Your task to perform on an android device: Open wifi settings Image 0: 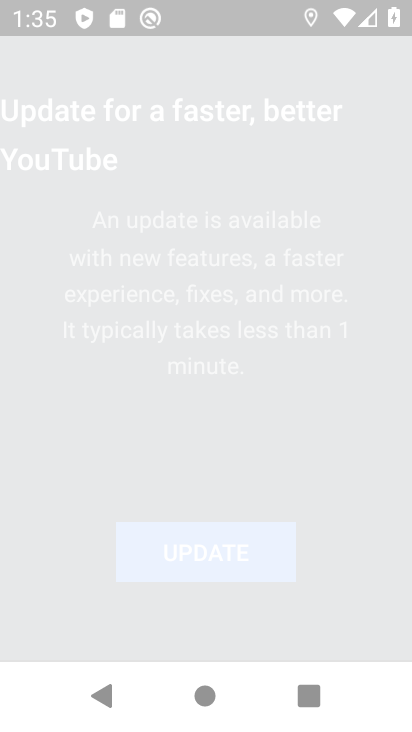
Step 0: drag from (385, 512) to (370, 120)
Your task to perform on an android device: Open wifi settings Image 1: 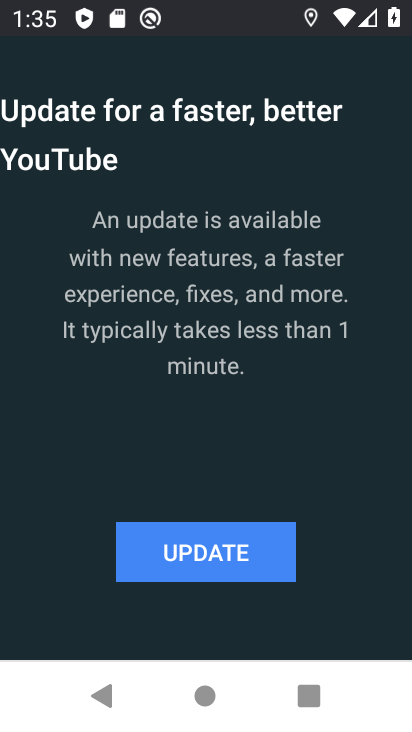
Step 1: press home button
Your task to perform on an android device: Open wifi settings Image 2: 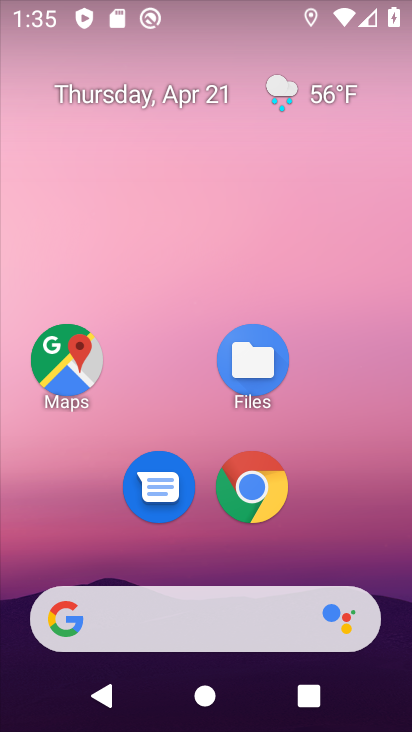
Step 2: drag from (358, 503) to (349, 130)
Your task to perform on an android device: Open wifi settings Image 3: 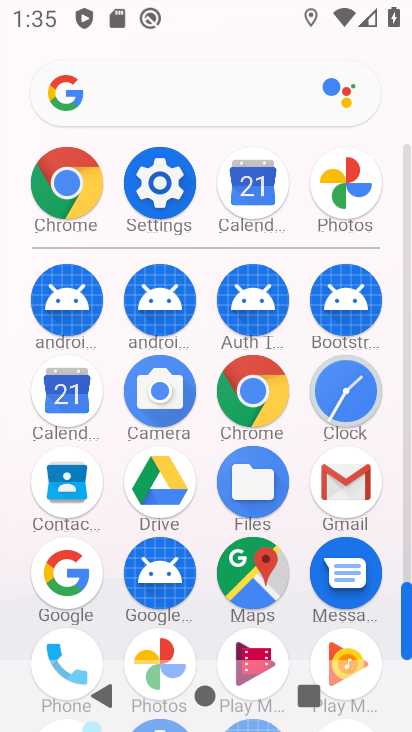
Step 3: click (156, 192)
Your task to perform on an android device: Open wifi settings Image 4: 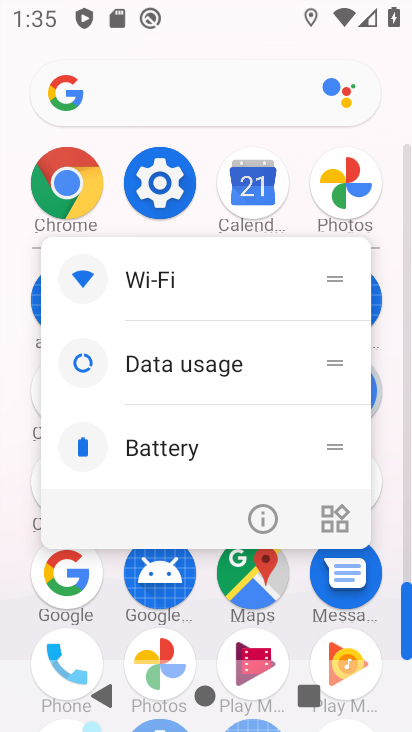
Step 4: click (156, 192)
Your task to perform on an android device: Open wifi settings Image 5: 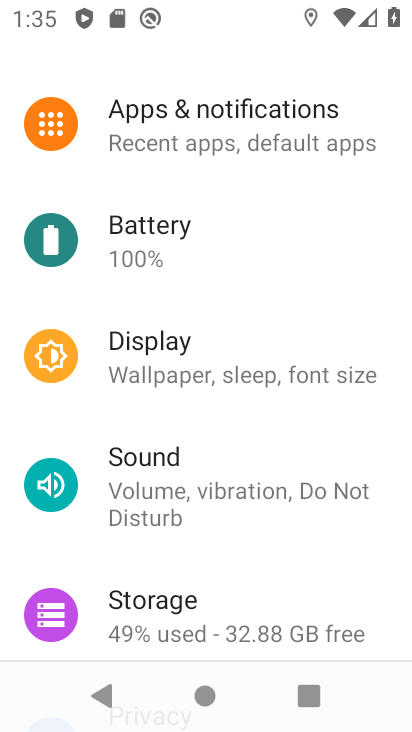
Step 5: drag from (249, 210) to (252, 582)
Your task to perform on an android device: Open wifi settings Image 6: 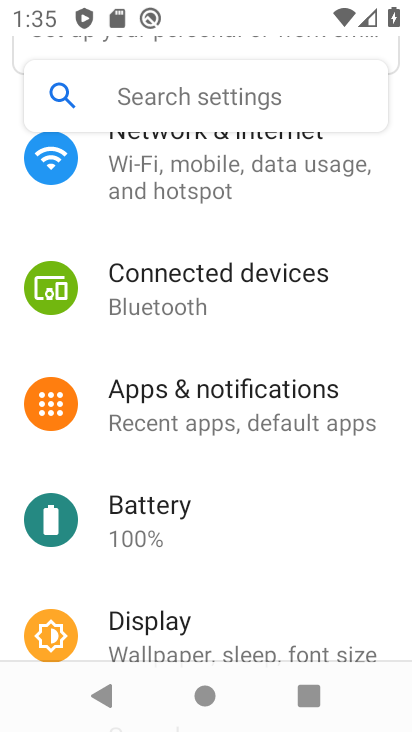
Step 6: click (203, 181)
Your task to perform on an android device: Open wifi settings Image 7: 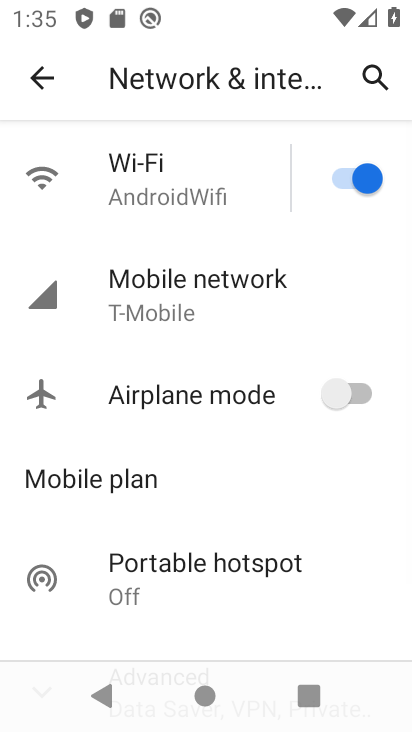
Step 7: click (204, 179)
Your task to perform on an android device: Open wifi settings Image 8: 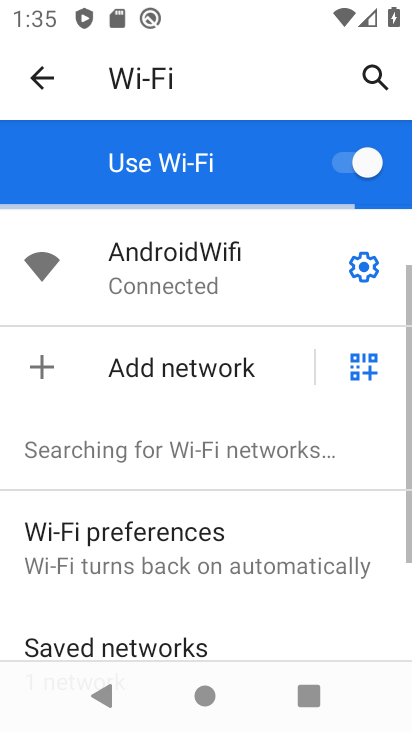
Step 8: click (353, 270)
Your task to perform on an android device: Open wifi settings Image 9: 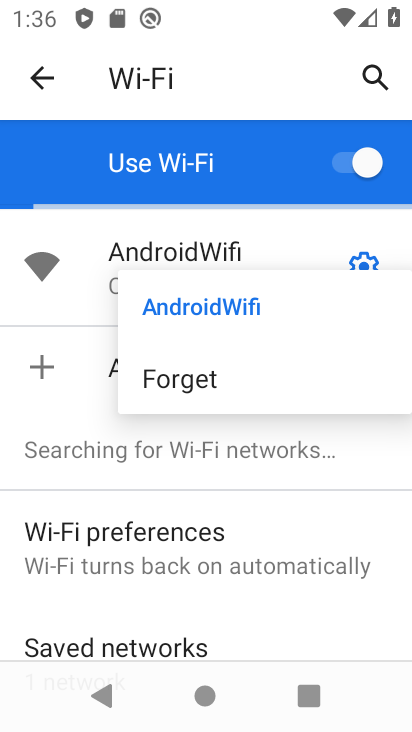
Step 9: click (363, 260)
Your task to perform on an android device: Open wifi settings Image 10: 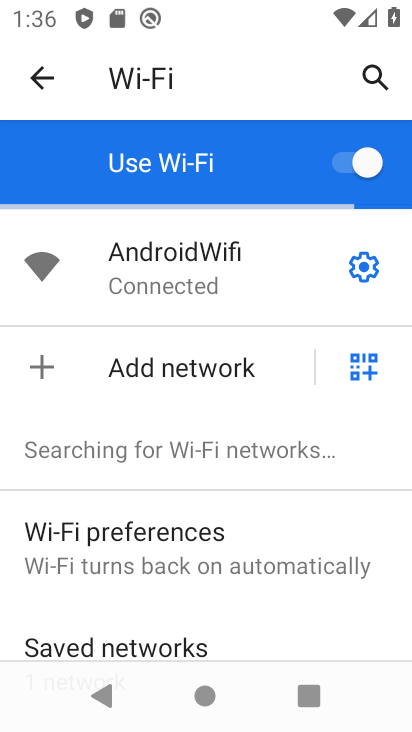
Step 10: click (363, 260)
Your task to perform on an android device: Open wifi settings Image 11: 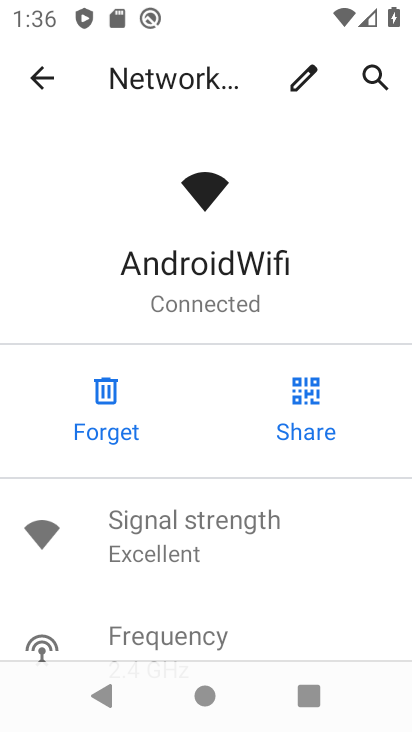
Step 11: task complete